Your task to perform on an android device: Go to Android settings Image 0: 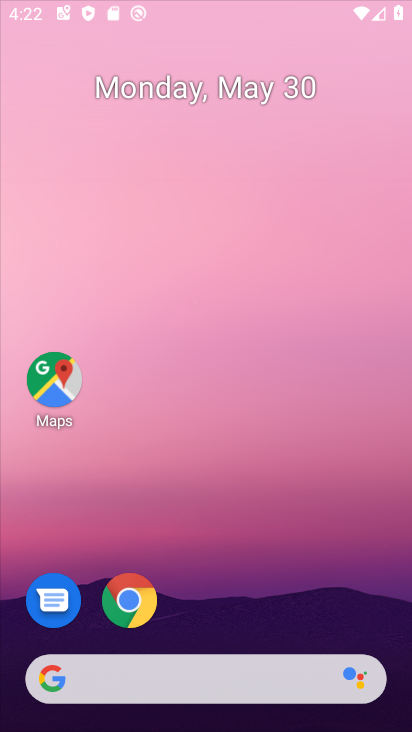
Step 0: press home button
Your task to perform on an android device: Go to Android settings Image 1: 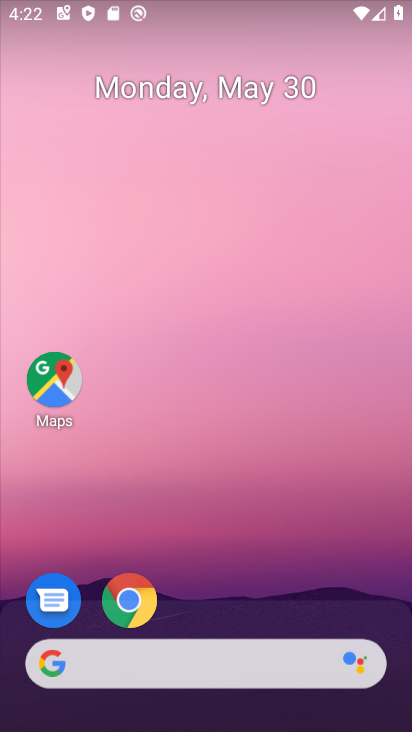
Step 1: drag from (217, 623) to (289, 81)
Your task to perform on an android device: Go to Android settings Image 2: 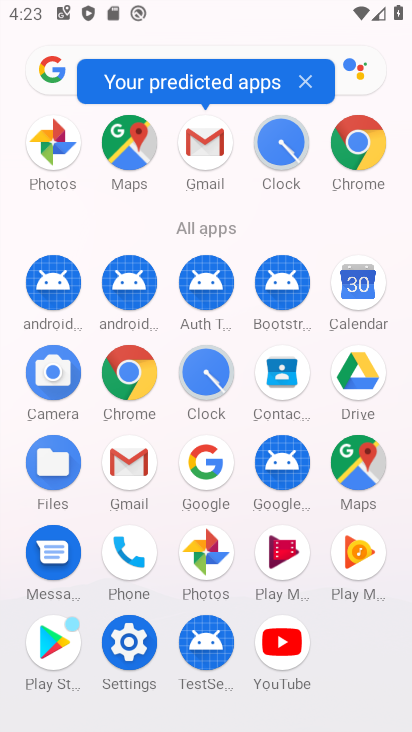
Step 2: click (135, 637)
Your task to perform on an android device: Go to Android settings Image 3: 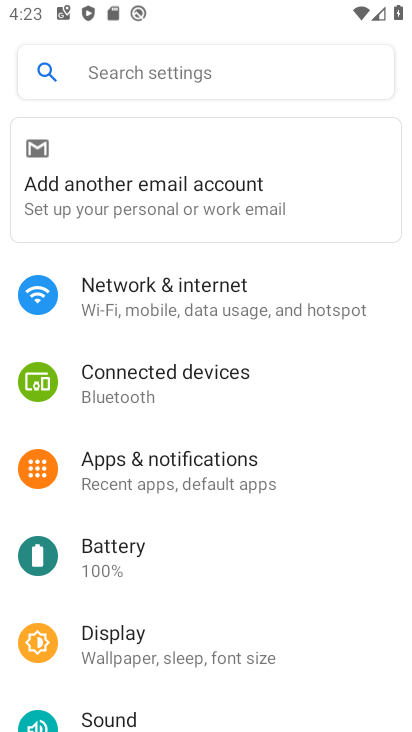
Step 3: drag from (192, 660) to (192, 67)
Your task to perform on an android device: Go to Android settings Image 4: 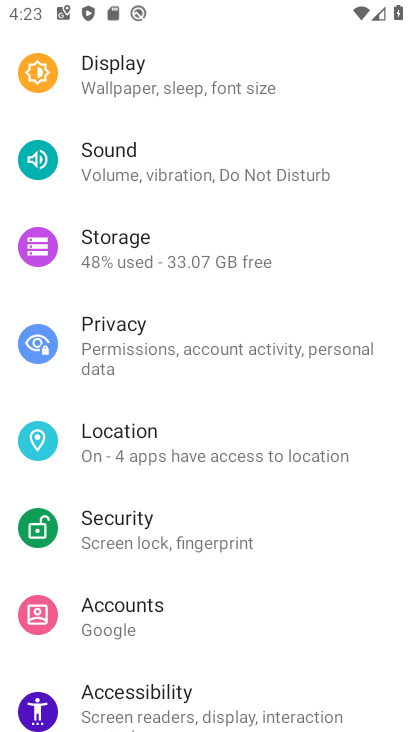
Step 4: drag from (170, 666) to (228, 144)
Your task to perform on an android device: Go to Android settings Image 5: 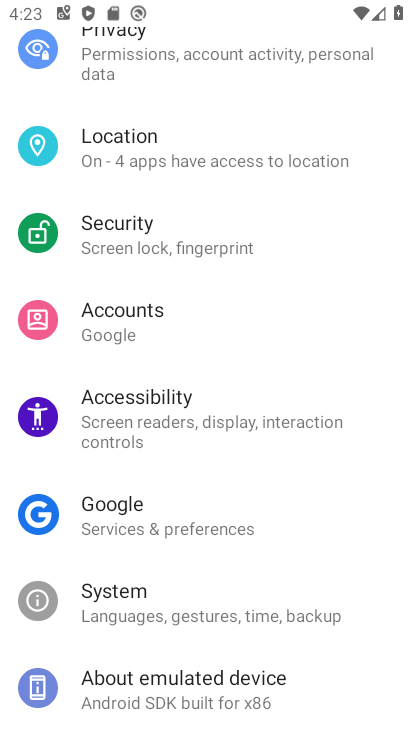
Step 5: drag from (209, 651) to (246, 253)
Your task to perform on an android device: Go to Android settings Image 6: 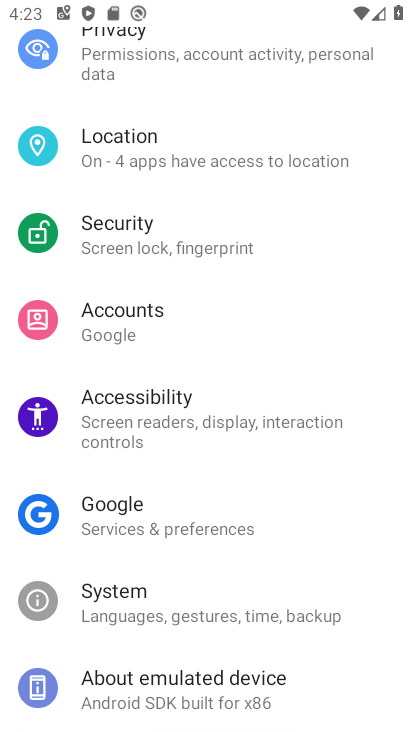
Step 6: click (241, 665)
Your task to perform on an android device: Go to Android settings Image 7: 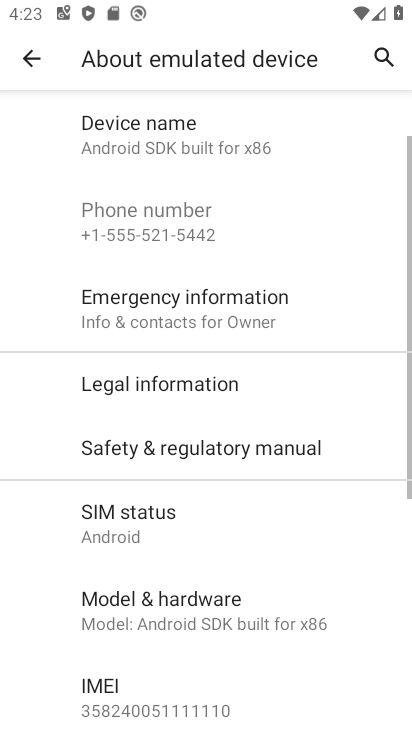
Step 7: drag from (180, 677) to (225, 173)
Your task to perform on an android device: Go to Android settings Image 8: 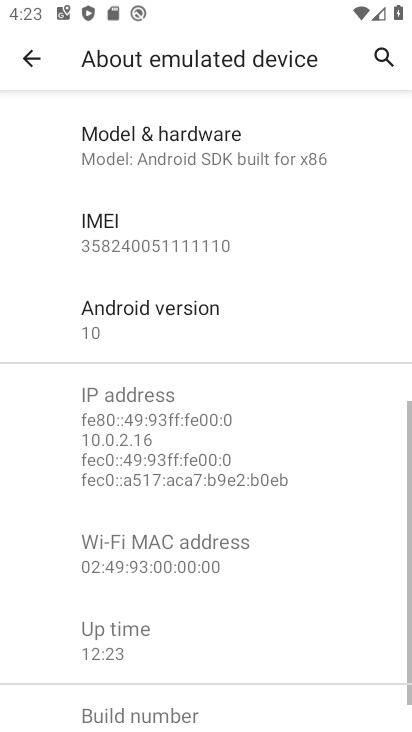
Step 8: click (157, 330)
Your task to perform on an android device: Go to Android settings Image 9: 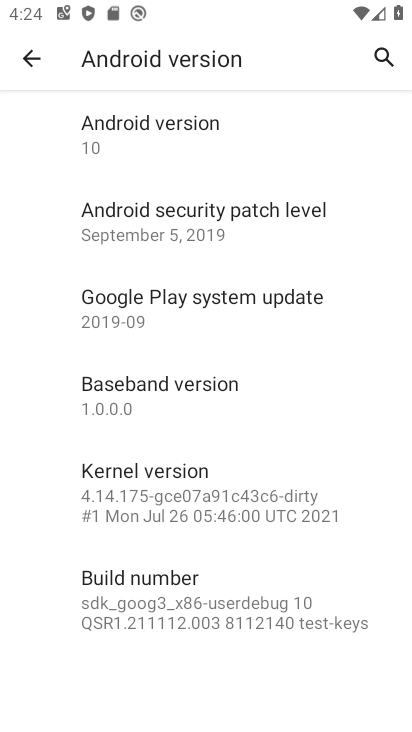
Step 9: click (124, 135)
Your task to perform on an android device: Go to Android settings Image 10: 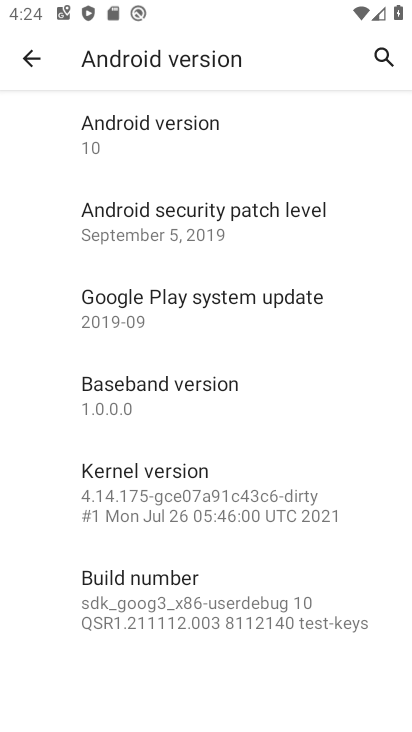
Step 10: task complete